Your task to perform on an android device: open a new tab in the chrome app Image 0: 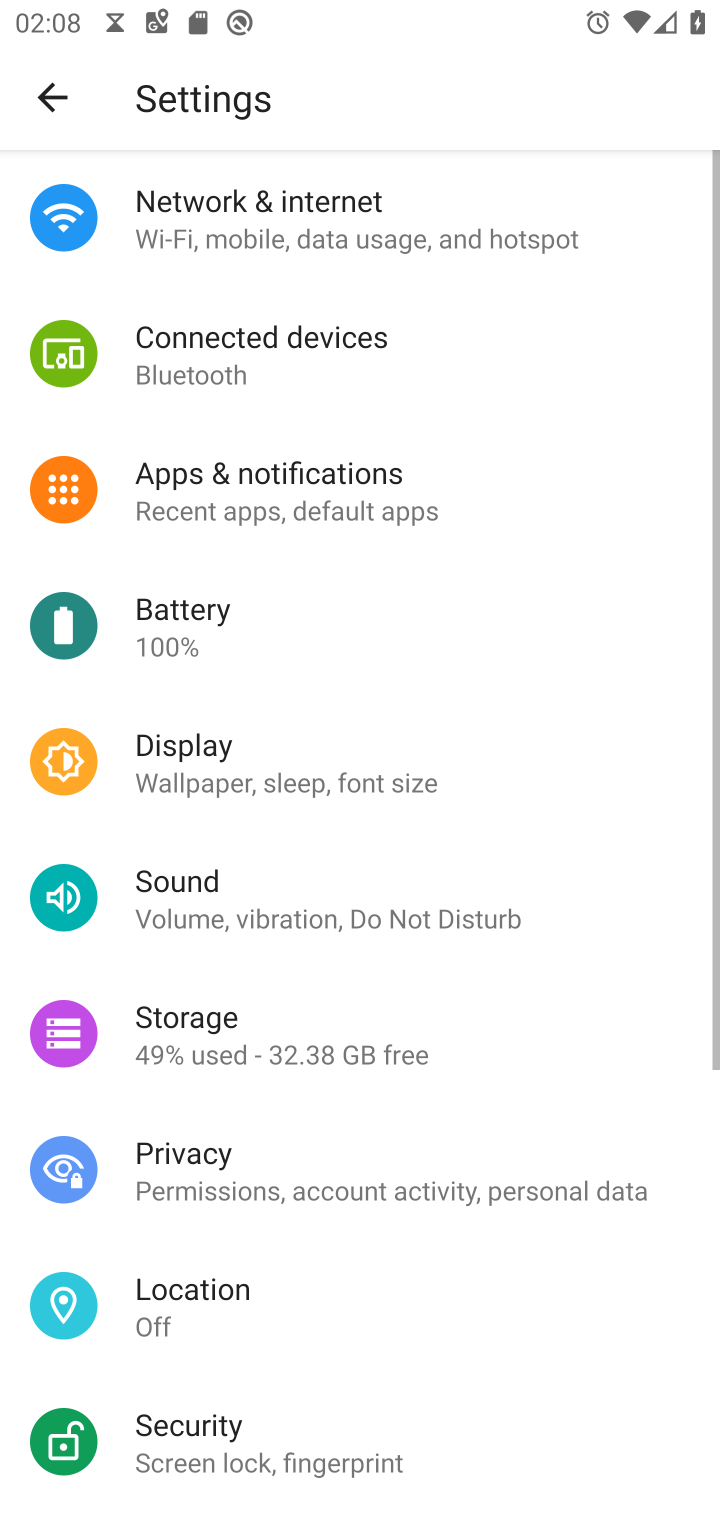
Step 0: press home button
Your task to perform on an android device: open a new tab in the chrome app Image 1: 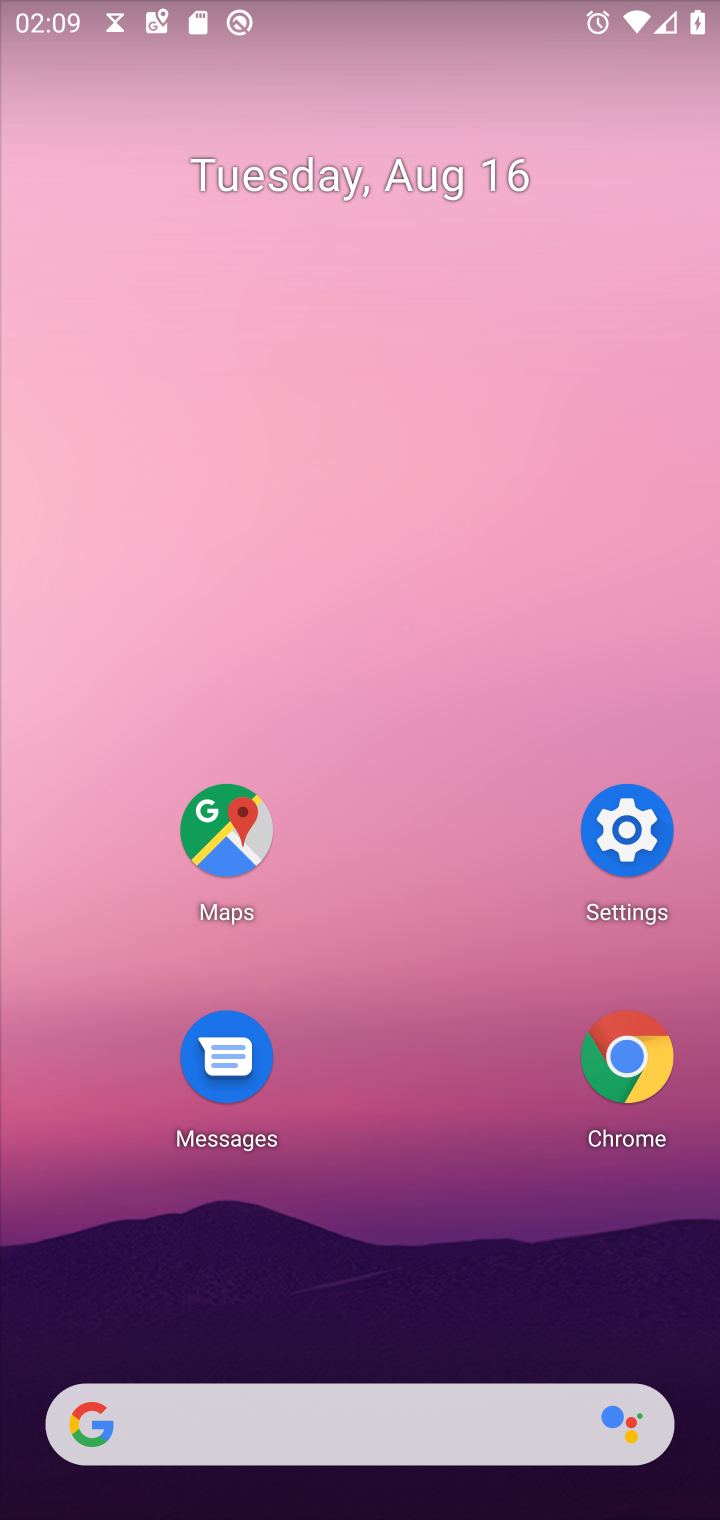
Step 1: click (630, 1053)
Your task to perform on an android device: open a new tab in the chrome app Image 2: 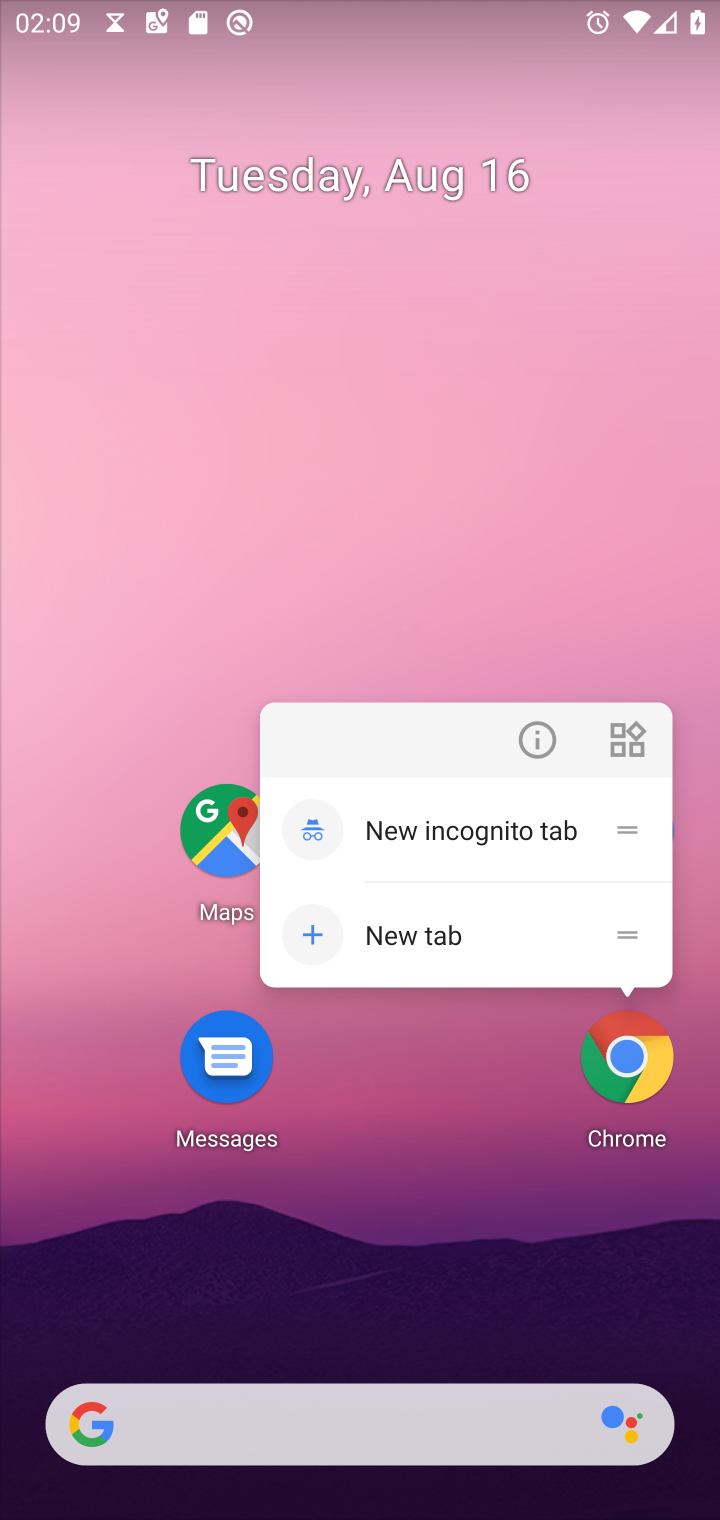
Step 2: click (622, 1058)
Your task to perform on an android device: open a new tab in the chrome app Image 3: 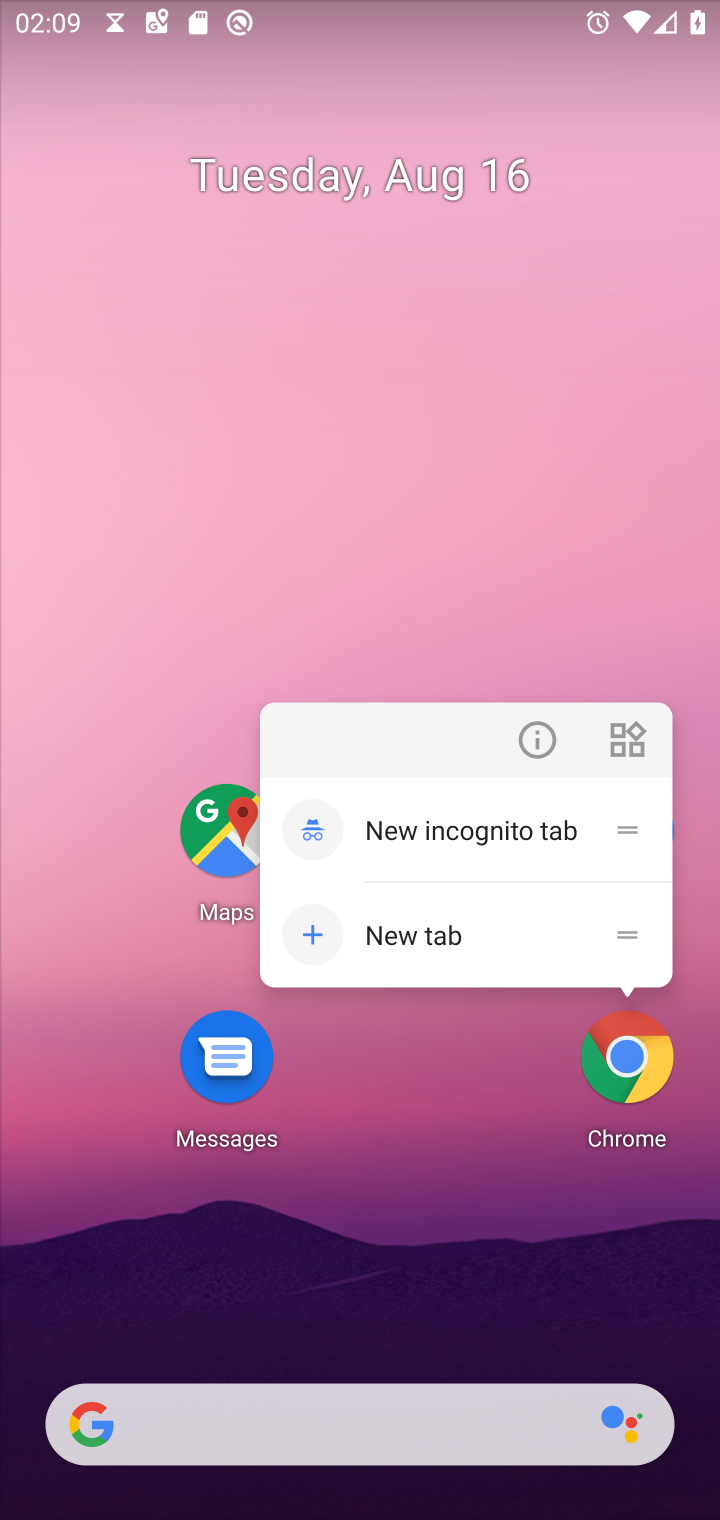
Step 3: click (633, 1056)
Your task to perform on an android device: open a new tab in the chrome app Image 4: 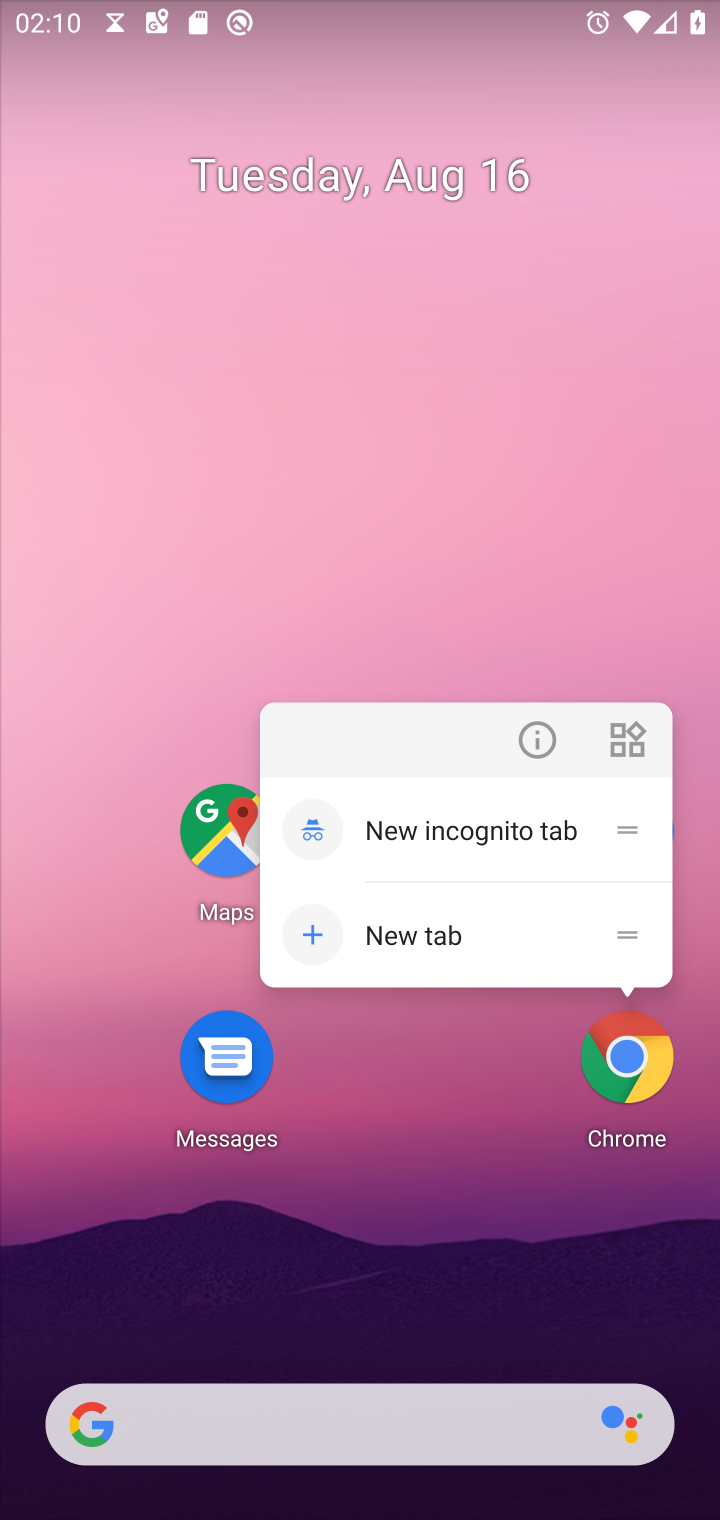
Step 4: click (633, 1082)
Your task to perform on an android device: open a new tab in the chrome app Image 5: 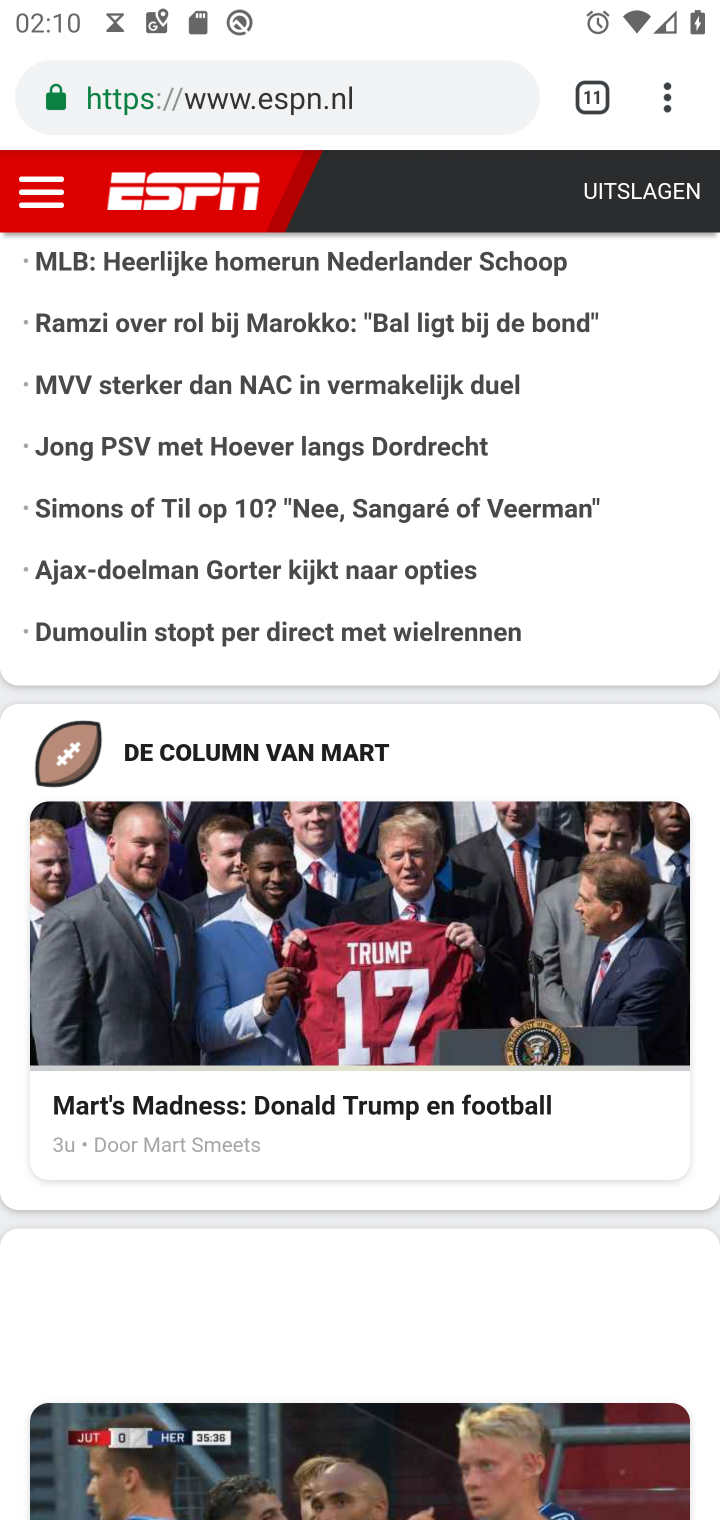
Step 5: task complete